Your task to perform on an android device: Add "alienware area 51" to the cart on costco.com Image 0: 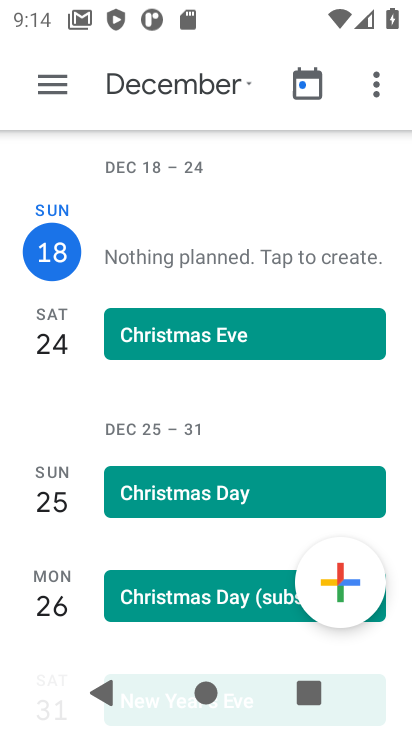
Step 0: press home button
Your task to perform on an android device: Add "alienware area 51" to the cart on costco.com Image 1: 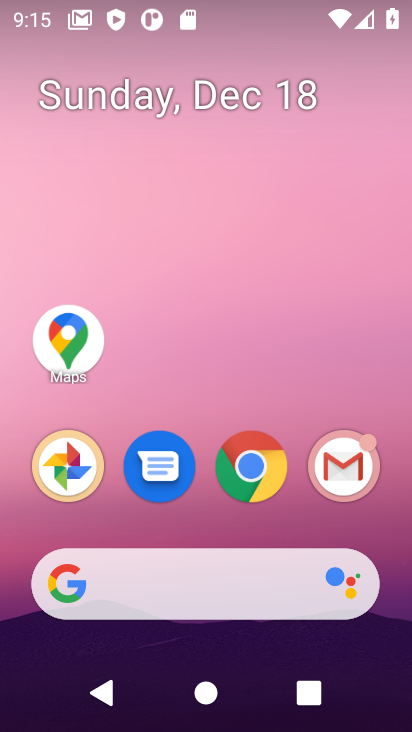
Step 1: click (245, 469)
Your task to perform on an android device: Add "alienware area 51" to the cart on costco.com Image 2: 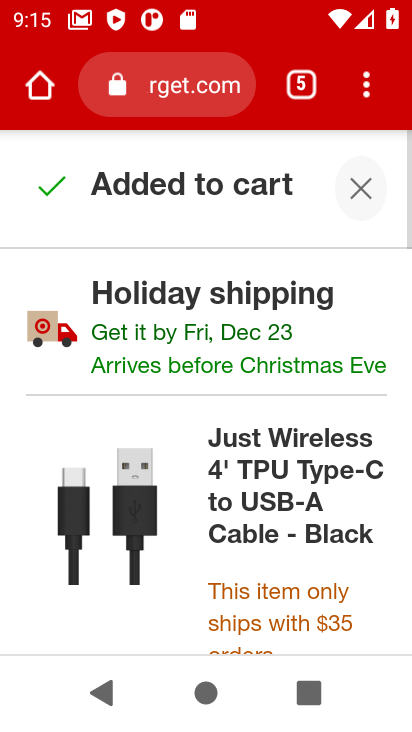
Step 2: click (178, 91)
Your task to perform on an android device: Add "alienware area 51" to the cart on costco.com Image 3: 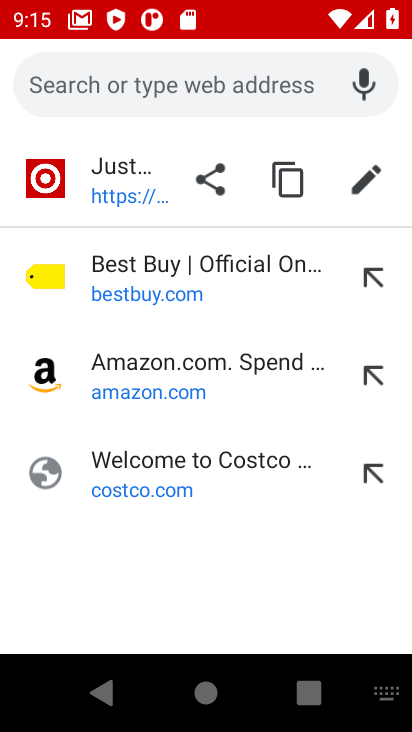
Step 3: click (224, 475)
Your task to perform on an android device: Add "alienware area 51" to the cart on costco.com Image 4: 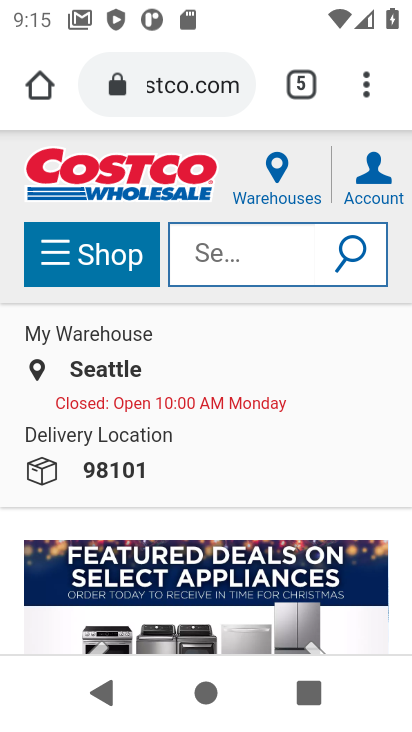
Step 4: click (283, 266)
Your task to perform on an android device: Add "alienware area 51" to the cart on costco.com Image 5: 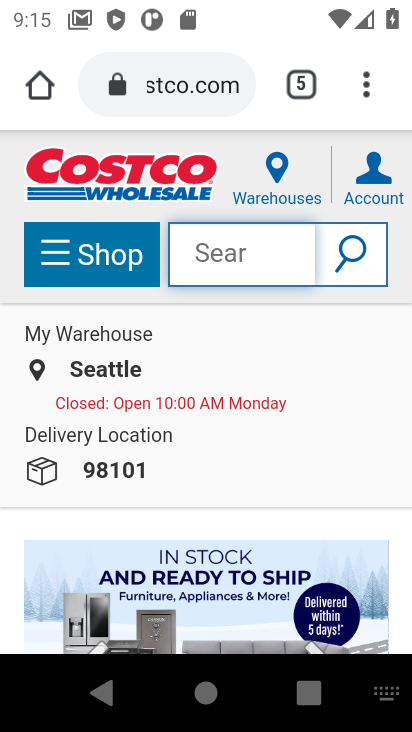
Step 5: type "alienware area 51"
Your task to perform on an android device: Add "alienware area 51" to the cart on costco.com Image 6: 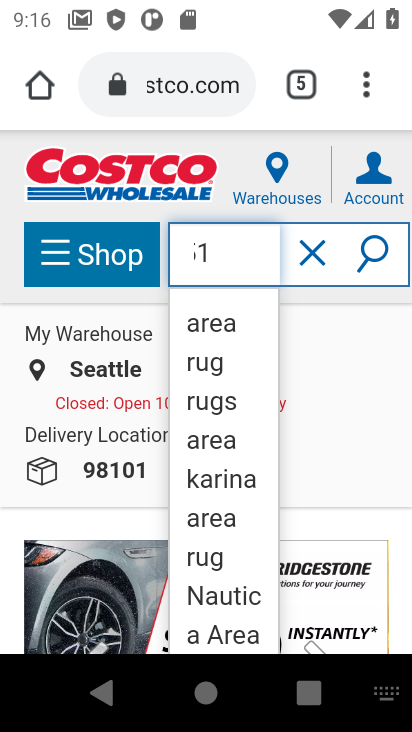
Step 6: click (226, 317)
Your task to perform on an android device: Add "alienware area 51" to the cart on costco.com Image 7: 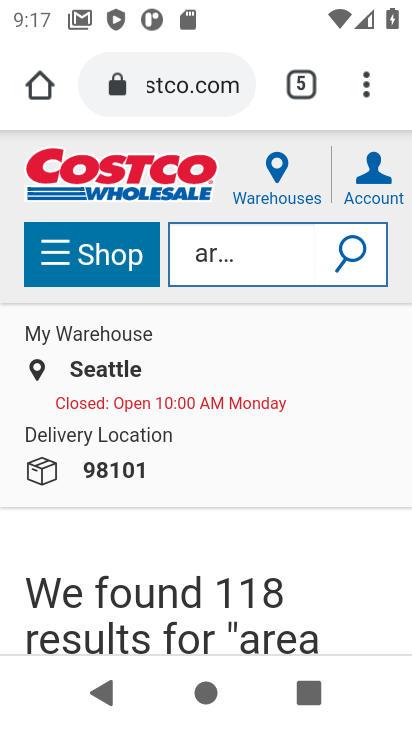
Step 7: drag from (219, 630) to (233, 134)
Your task to perform on an android device: Add "alienware area 51" to the cart on costco.com Image 8: 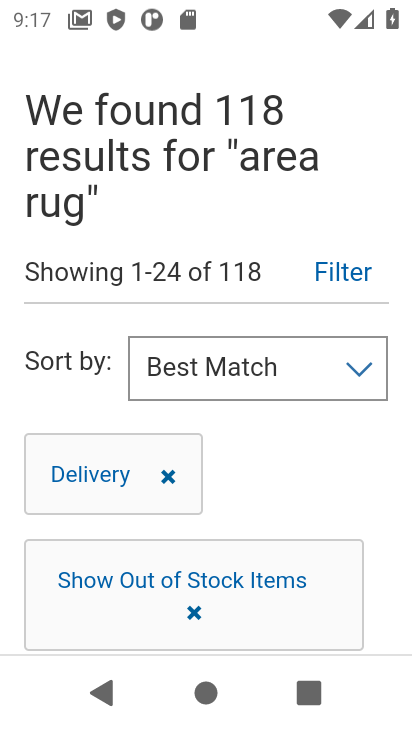
Step 8: drag from (275, 614) to (242, 133)
Your task to perform on an android device: Add "alienware area 51" to the cart on costco.com Image 9: 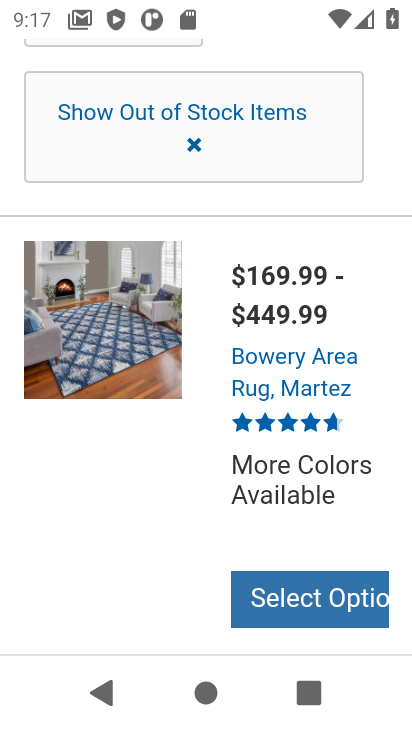
Step 9: click (293, 313)
Your task to perform on an android device: Add "alienware area 51" to the cart on costco.com Image 10: 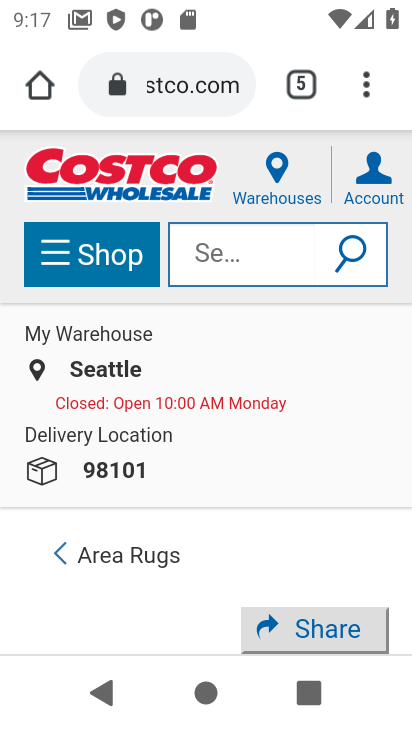
Step 10: drag from (199, 598) to (181, 239)
Your task to perform on an android device: Add "alienware area 51" to the cart on costco.com Image 11: 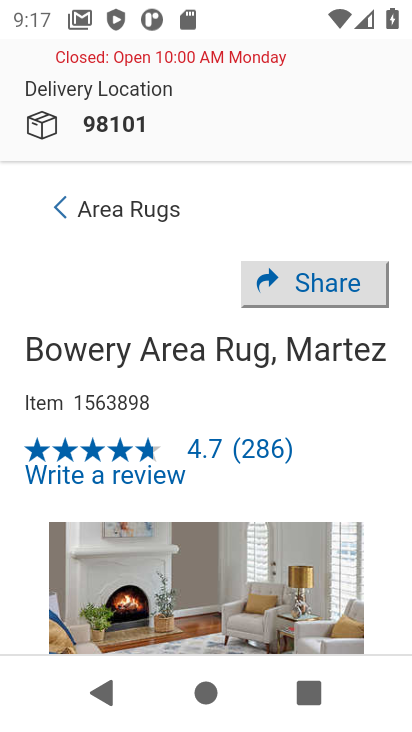
Step 11: drag from (207, 623) to (197, 176)
Your task to perform on an android device: Add "alienware area 51" to the cart on costco.com Image 12: 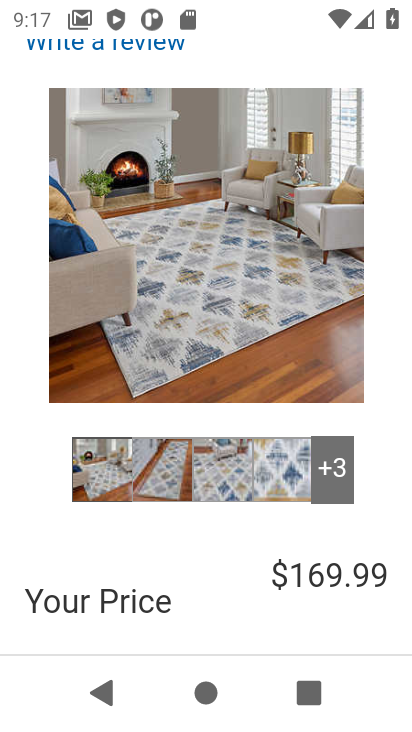
Step 12: drag from (261, 620) to (258, 185)
Your task to perform on an android device: Add "alienware area 51" to the cart on costco.com Image 13: 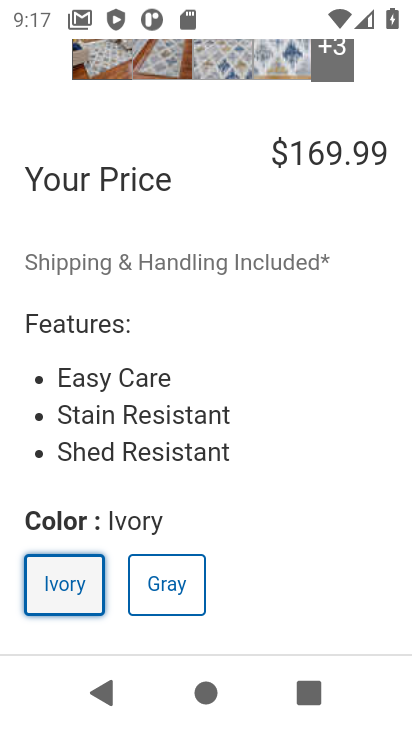
Step 13: drag from (243, 603) to (214, 147)
Your task to perform on an android device: Add "alienware area 51" to the cart on costco.com Image 14: 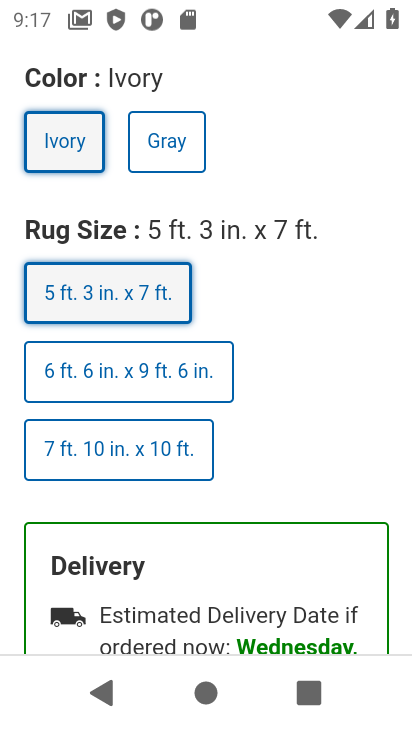
Step 14: drag from (242, 609) to (219, 53)
Your task to perform on an android device: Add "alienware area 51" to the cart on costco.com Image 15: 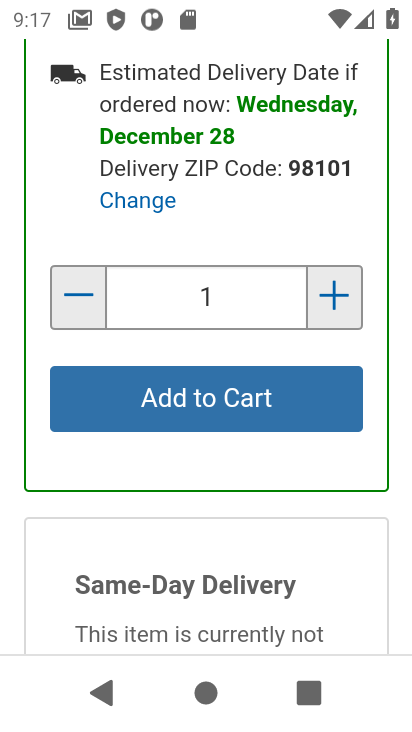
Step 15: click (189, 397)
Your task to perform on an android device: Add "alienware area 51" to the cart on costco.com Image 16: 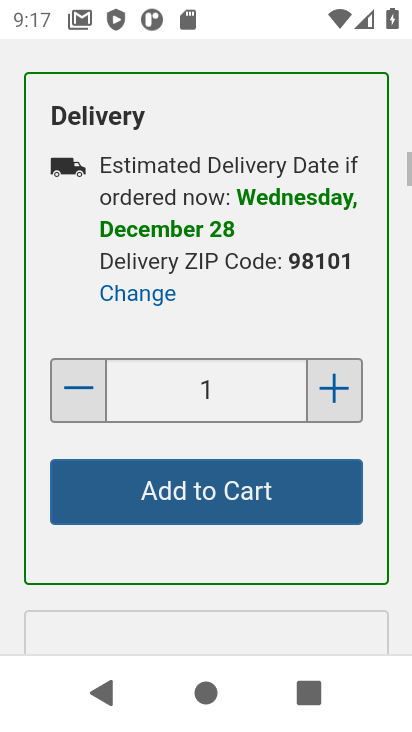
Step 16: task complete